Your task to perform on an android device: turn notification dots off Image 0: 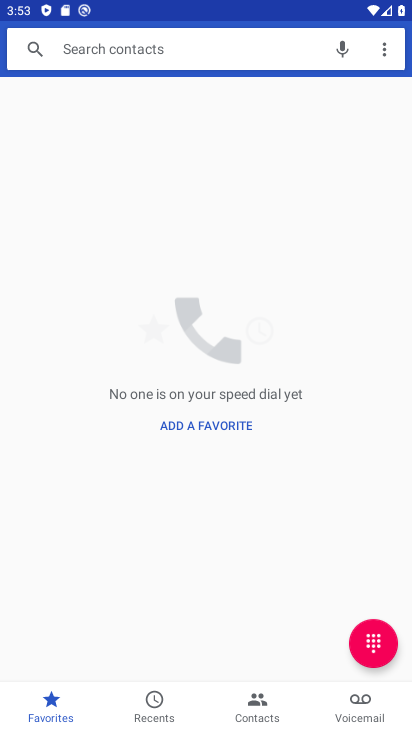
Step 0: press home button
Your task to perform on an android device: turn notification dots off Image 1: 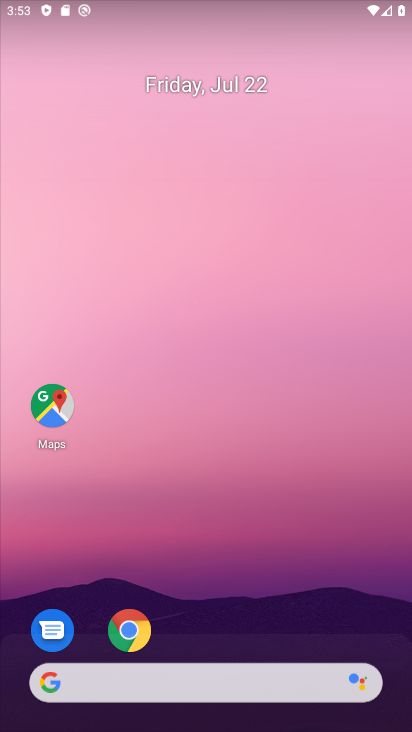
Step 1: drag from (188, 626) to (248, 22)
Your task to perform on an android device: turn notification dots off Image 2: 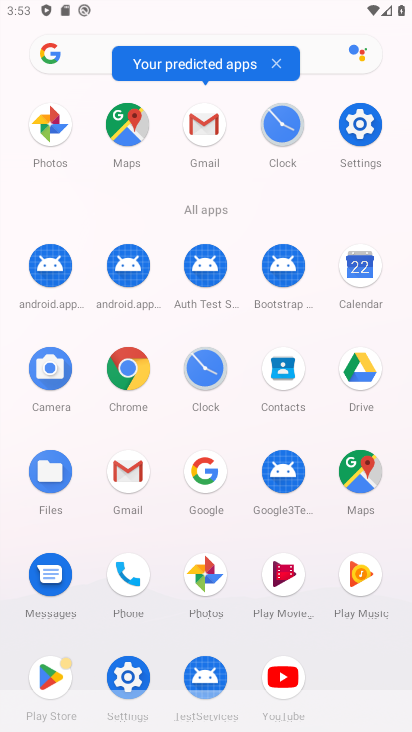
Step 2: click (360, 138)
Your task to perform on an android device: turn notification dots off Image 3: 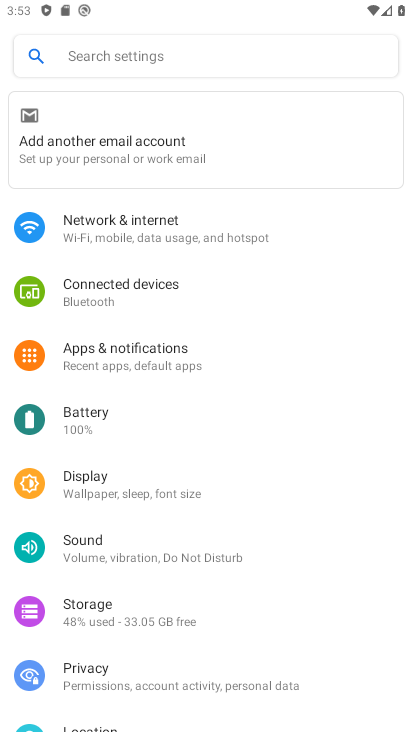
Step 3: click (97, 343)
Your task to perform on an android device: turn notification dots off Image 4: 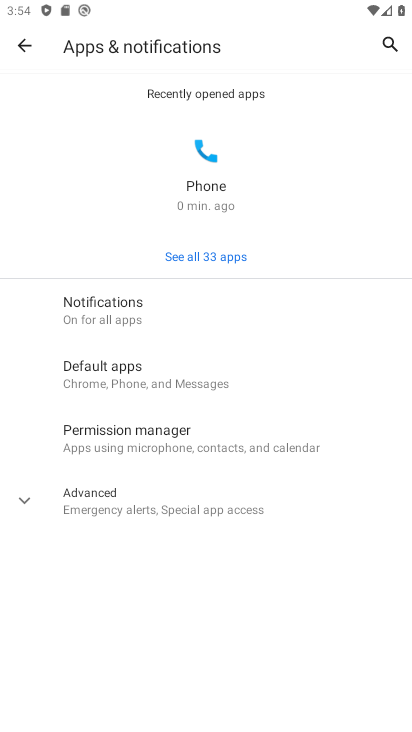
Step 4: press back button
Your task to perform on an android device: turn notification dots off Image 5: 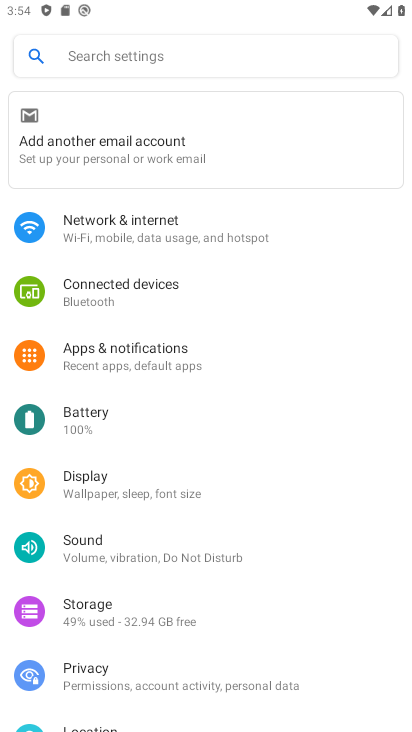
Step 5: click (123, 365)
Your task to perform on an android device: turn notification dots off Image 6: 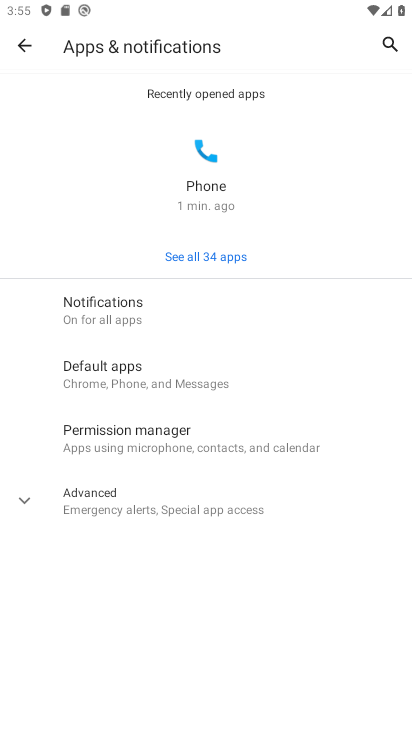
Step 6: click (109, 310)
Your task to perform on an android device: turn notification dots off Image 7: 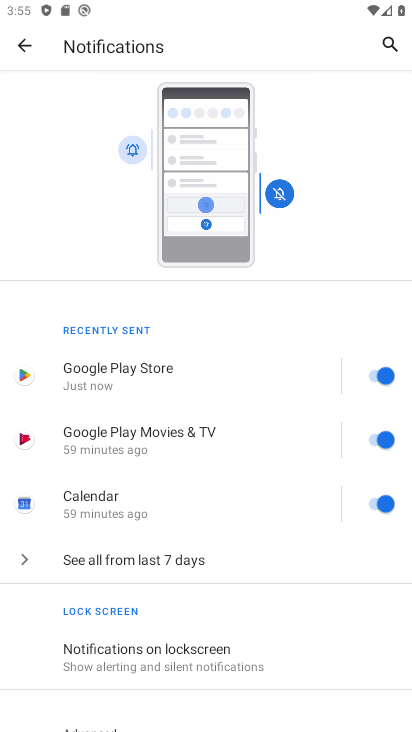
Step 7: drag from (136, 617) to (196, 357)
Your task to perform on an android device: turn notification dots off Image 8: 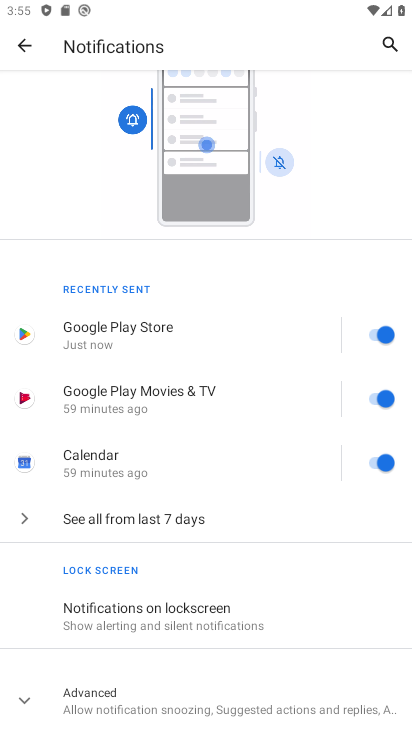
Step 8: click (63, 703)
Your task to perform on an android device: turn notification dots off Image 9: 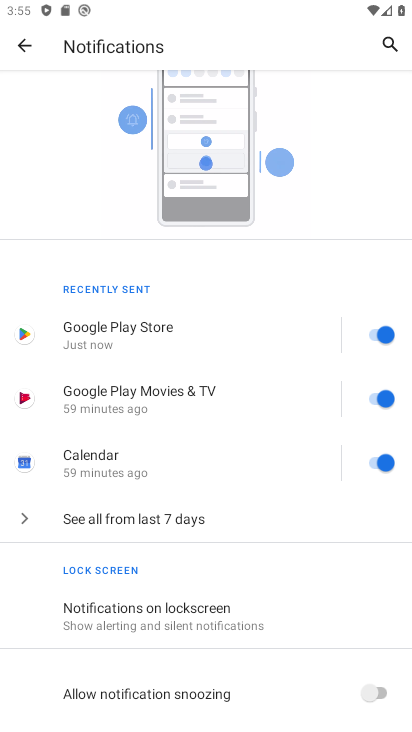
Step 9: drag from (189, 606) to (206, 397)
Your task to perform on an android device: turn notification dots off Image 10: 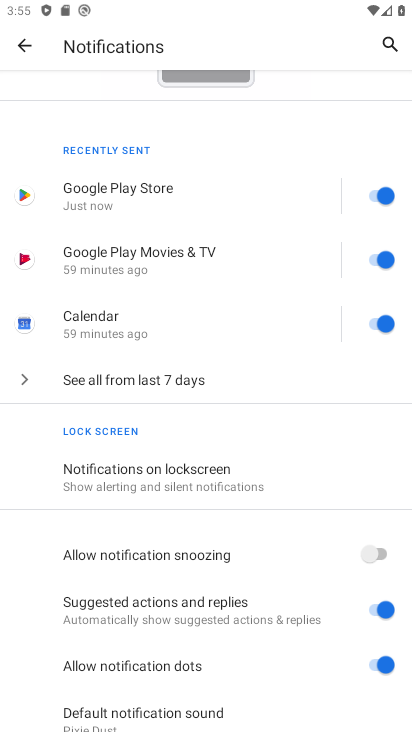
Step 10: click (371, 666)
Your task to perform on an android device: turn notification dots off Image 11: 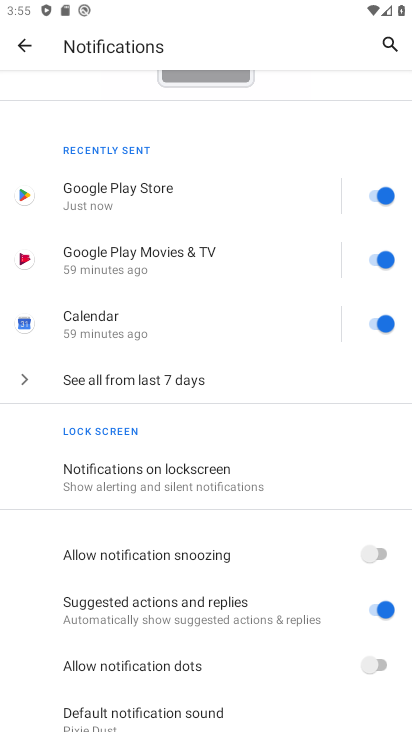
Step 11: task complete